Your task to perform on an android device: Open sound settings Image 0: 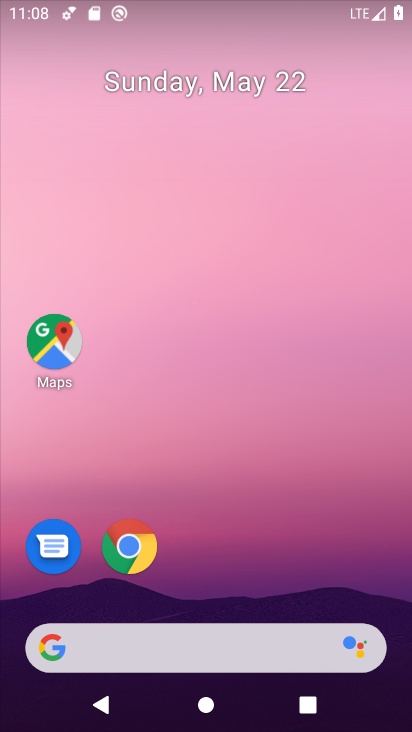
Step 0: drag from (254, 596) to (311, 3)
Your task to perform on an android device: Open sound settings Image 1: 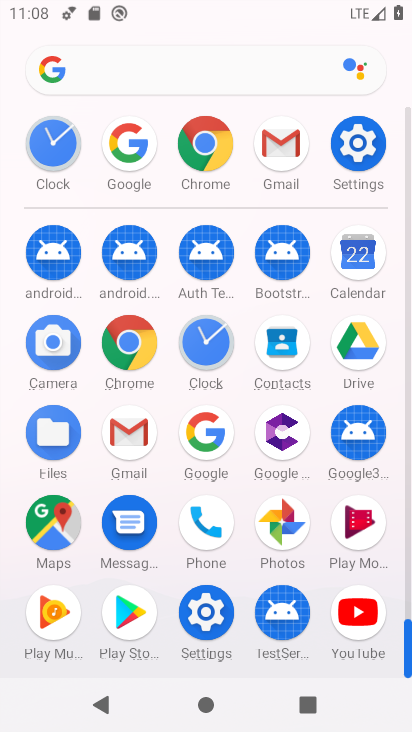
Step 1: click (368, 138)
Your task to perform on an android device: Open sound settings Image 2: 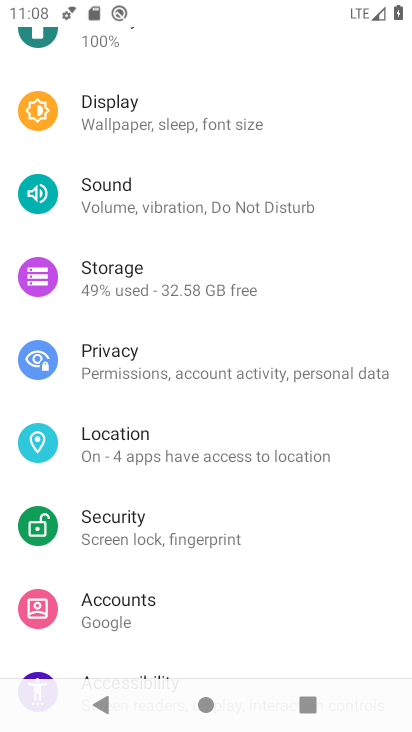
Step 2: drag from (243, 471) to (309, 116)
Your task to perform on an android device: Open sound settings Image 3: 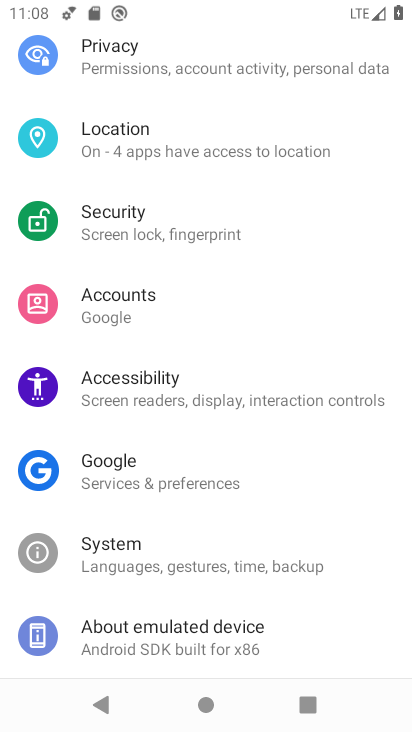
Step 3: drag from (208, 208) to (207, 697)
Your task to perform on an android device: Open sound settings Image 4: 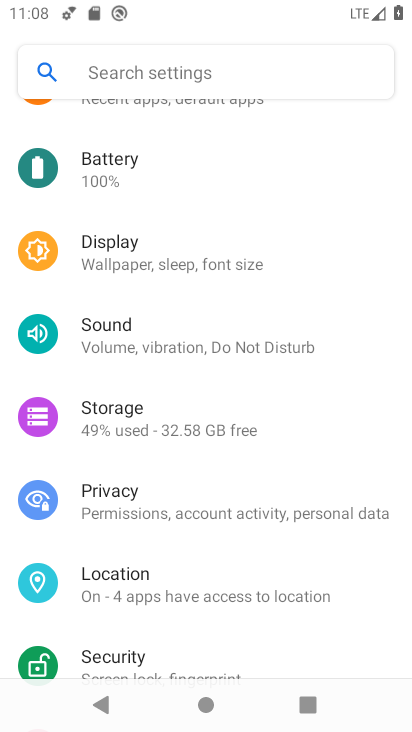
Step 4: click (207, 353)
Your task to perform on an android device: Open sound settings Image 5: 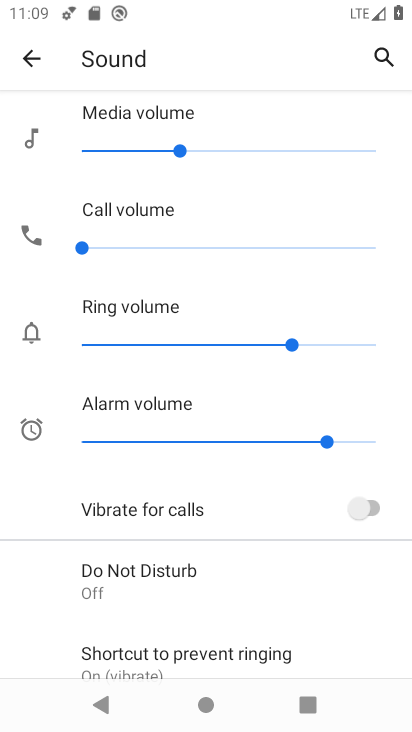
Step 5: task complete